Your task to perform on an android device: refresh tabs in the chrome app Image 0: 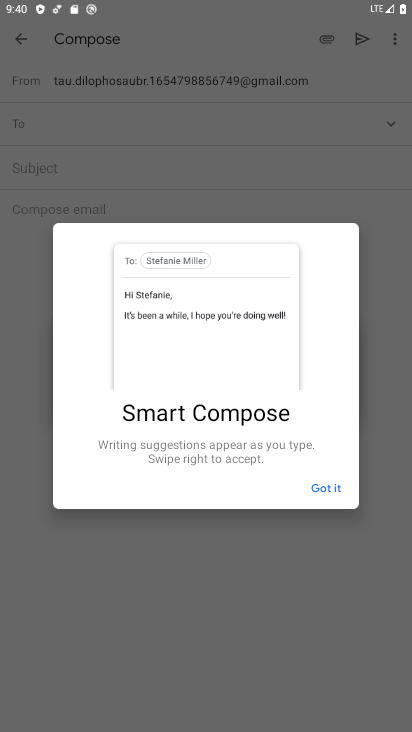
Step 0: press home button
Your task to perform on an android device: refresh tabs in the chrome app Image 1: 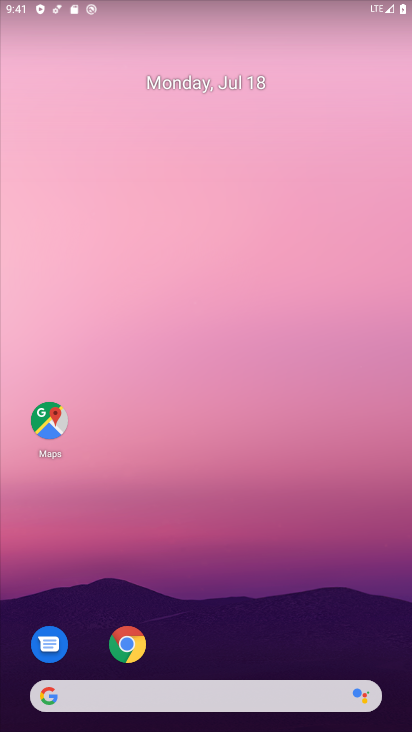
Step 1: drag from (317, 607) to (368, 121)
Your task to perform on an android device: refresh tabs in the chrome app Image 2: 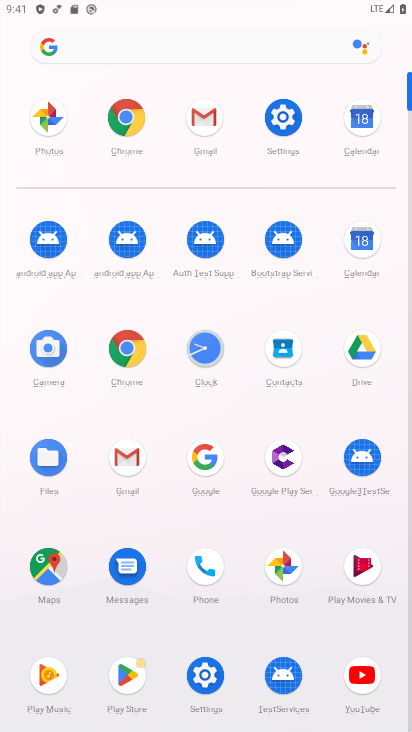
Step 2: click (125, 352)
Your task to perform on an android device: refresh tabs in the chrome app Image 3: 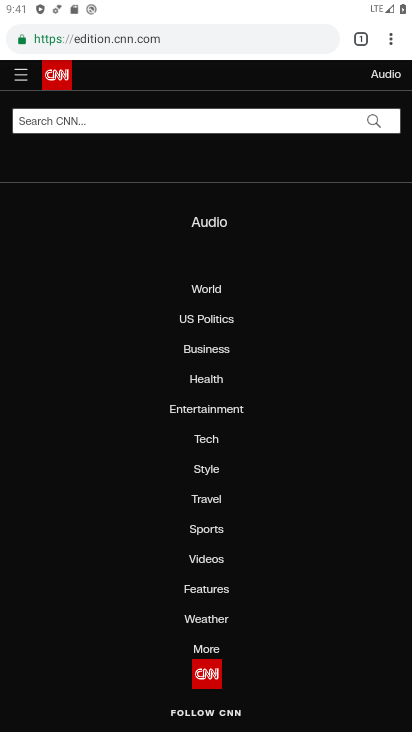
Step 3: click (391, 42)
Your task to perform on an android device: refresh tabs in the chrome app Image 4: 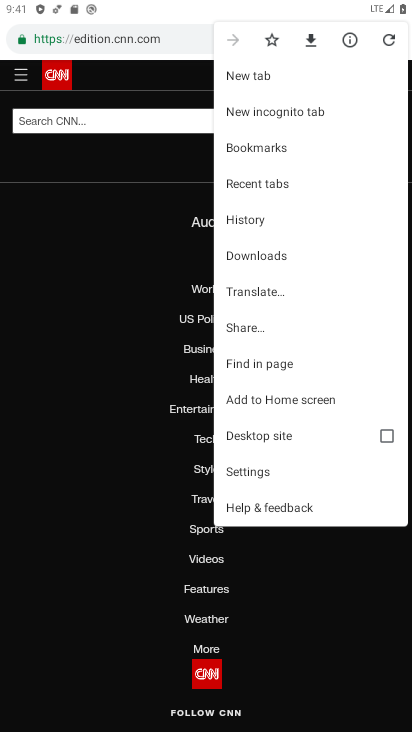
Step 4: click (380, 43)
Your task to perform on an android device: refresh tabs in the chrome app Image 5: 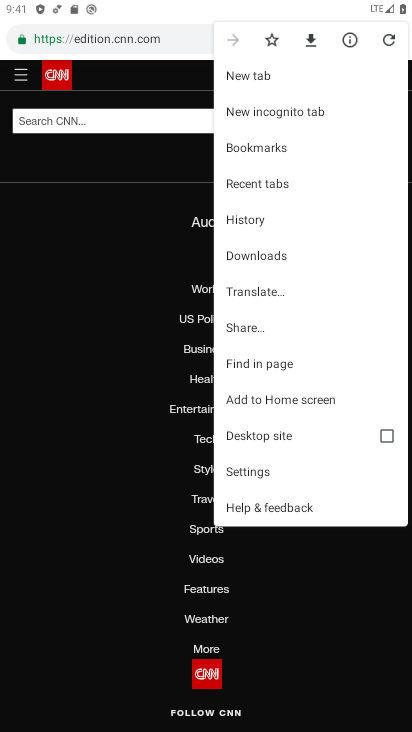
Step 5: click (388, 40)
Your task to perform on an android device: refresh tabs in the chrome app Image 6: 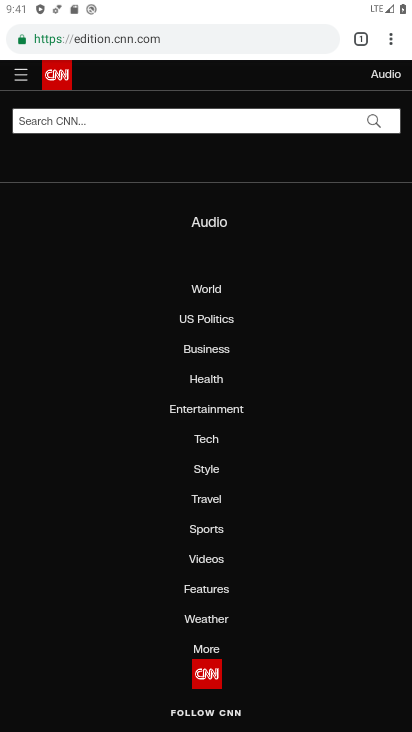
Step 6: task complete